Your task to perform on an android device: See recent photos Image 0: 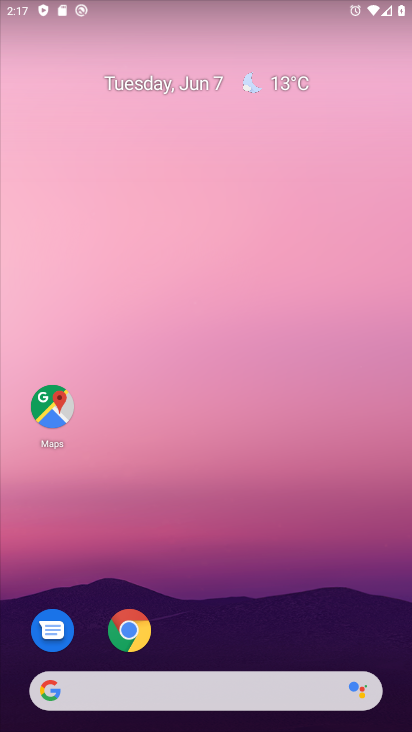
Step 0: drag from (393, 425) to (364, 37)
Your task to perform on an android device: See recent photos Image 1: 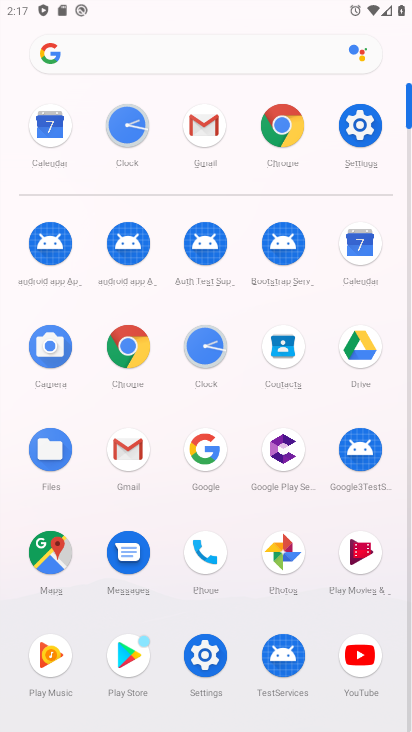
Step 1: click (275, 553)
Your task to perform on an android device: See recent photos Image 2: 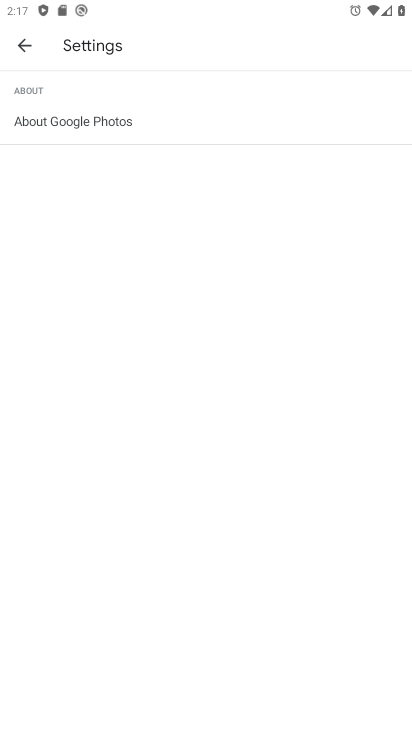
Step 2: click (17, 49)
Your task to perform on an android device: See recent photos Image 3: 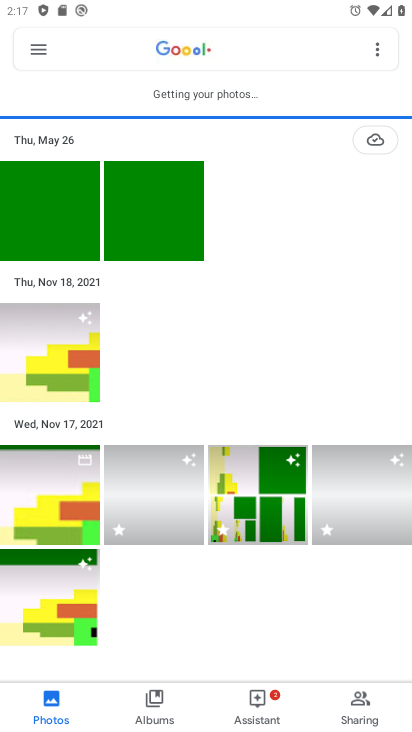
Step 3: click (172, 498)
Your task to perform on an android device: See recent photos Image 4: 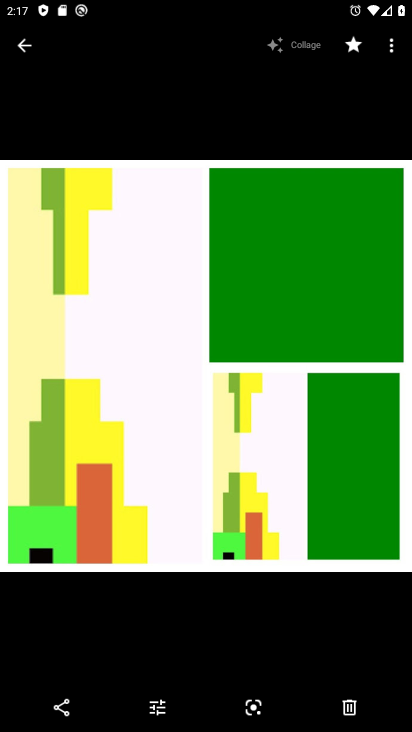
Step 4: press back button
Your task to perform on an android device: See recent photos Image 5: 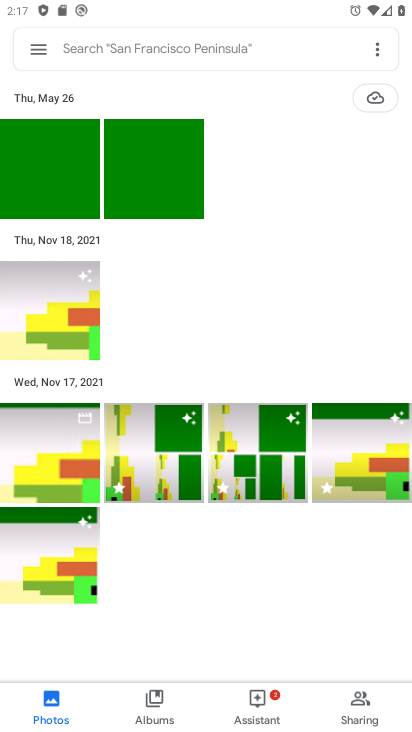
Step 5: click (325, 446)
Your task to perform on an android device: See recent photos Image 6: 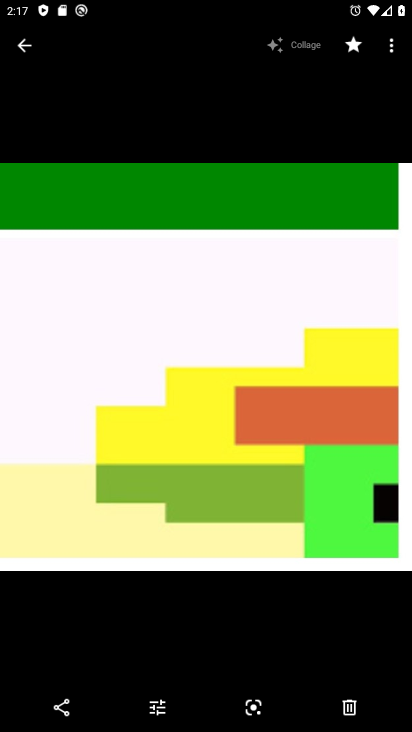
Step 6: press back button
Your task to perform on an android device: See recent photos Image 7: 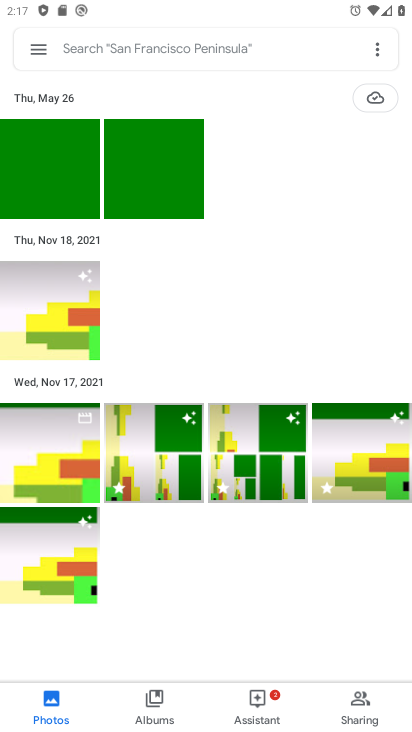
Step 7: click (75, 558)
Your task to perform on an android device: See recent photos Image 8: 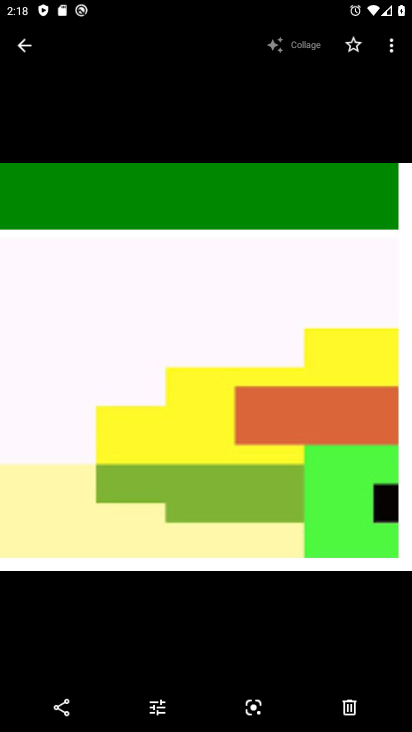
Step 8: task complete